Your task to perform on an android device: Show me popular games on the Play Store Image 0: 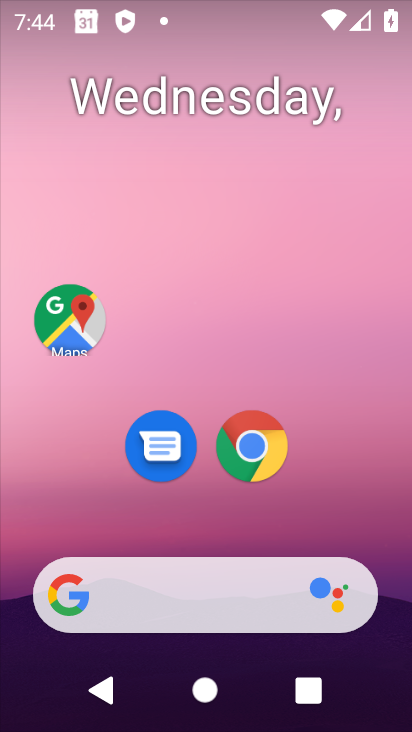
Step 0: drag from (339, 507) to (275, 162)
Your task to perform on an android device: Show me popular games on the Play Store Image 1: 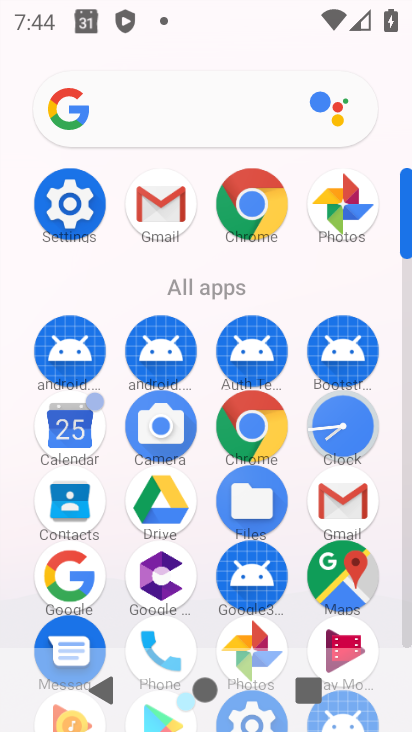
Step 1: drag from (403, 548) to (374, 178)
Your task to perform on an android device: Show me popular games on the Play Store Image 2: 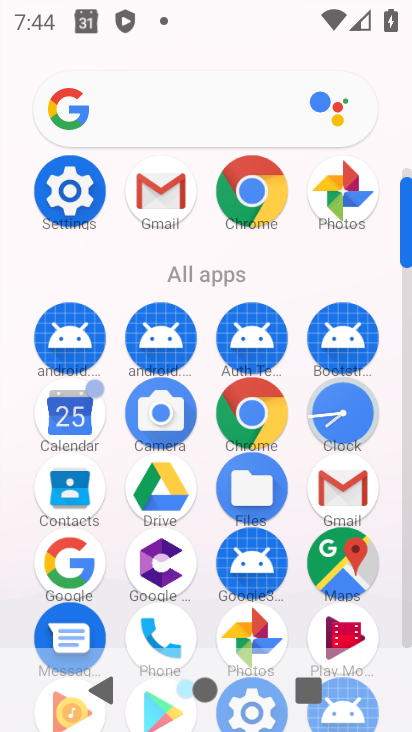
Step 2: drag from (388, 607) to (355, 329)
Your task to perform on an android device: Show me popular games on the Play Store Image 3: 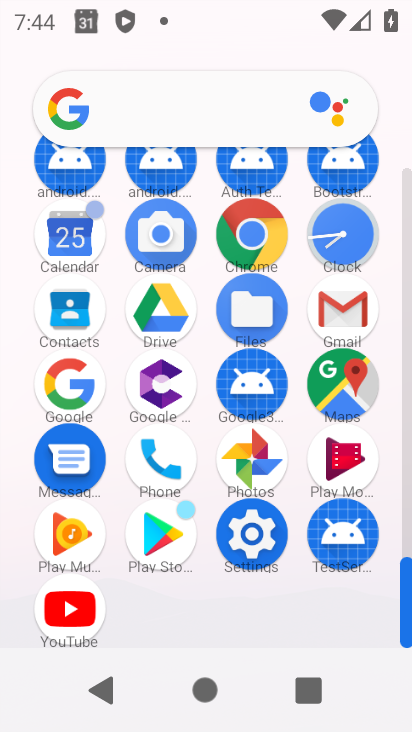
Step 3: click (171, 552)
Your task to perform on an android device: Show me popular games on the Play Store Image 4: 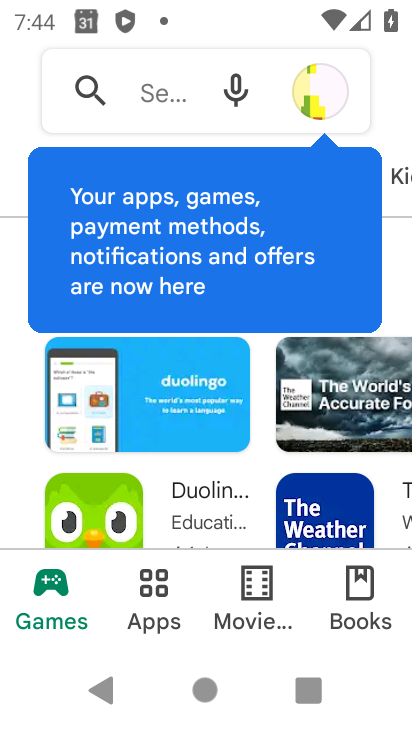
Step 4: click (145, 106)
Your task to perform on an android device: Show me popular games on the Play Store Image 5: 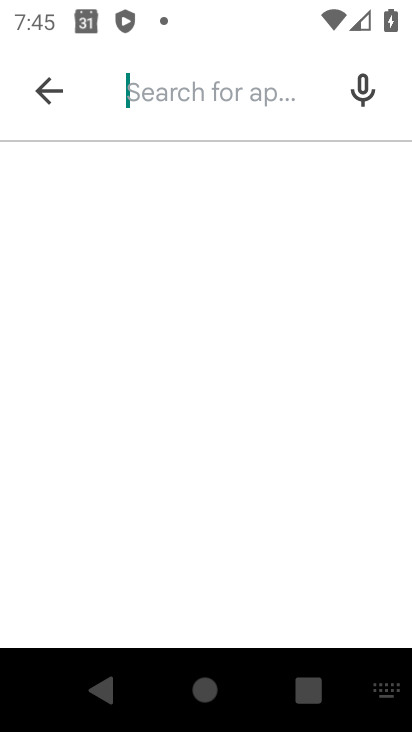
Step 5: type "popular games"
Your task to perform on an android device: Show me popular games on the Play Store Image 6: 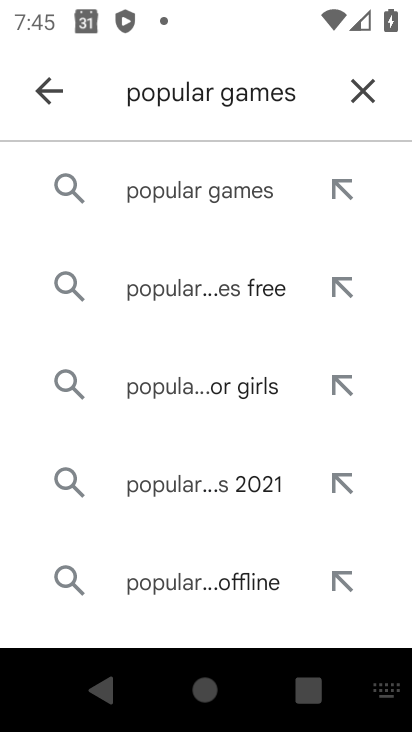
Step 6: click (221, 194)
Your task to perform on an android device: Show me popular games on the Play Store Image 7: 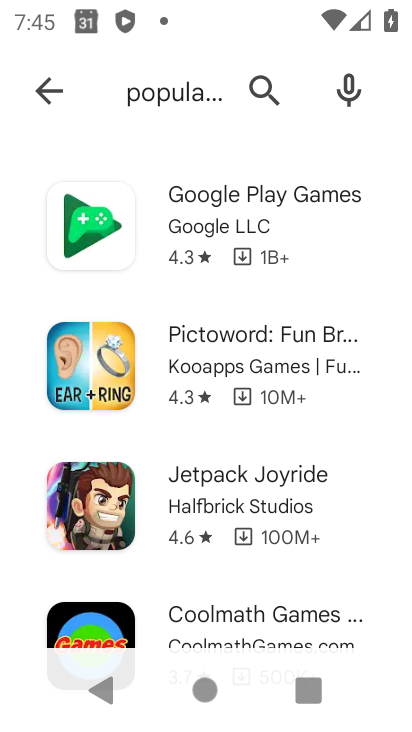
Step 7: task complete